Your task to perform on an android device: Open maps Image 0: 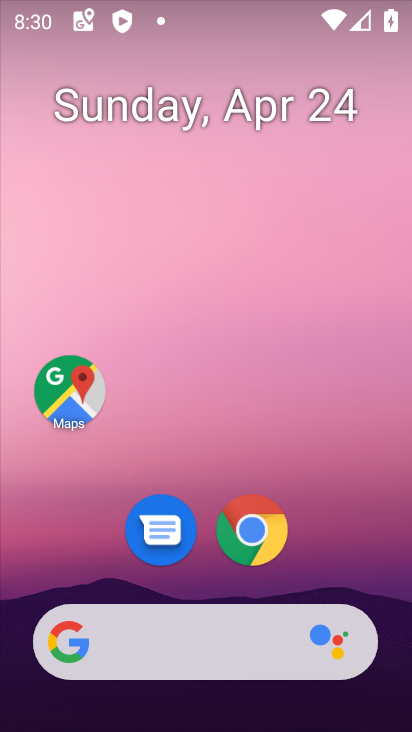
Step 0: click (68, 402)
Your task to perform on an android device: Open maps Image 1: 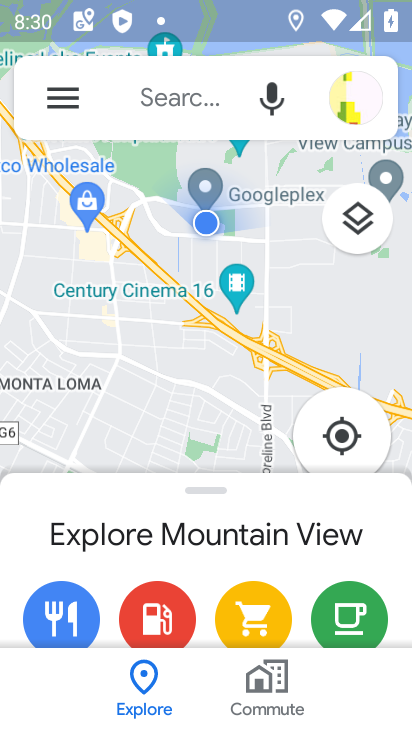
Step 1: task complete